Your task to perform on an android device: Open Amazon Image 0: 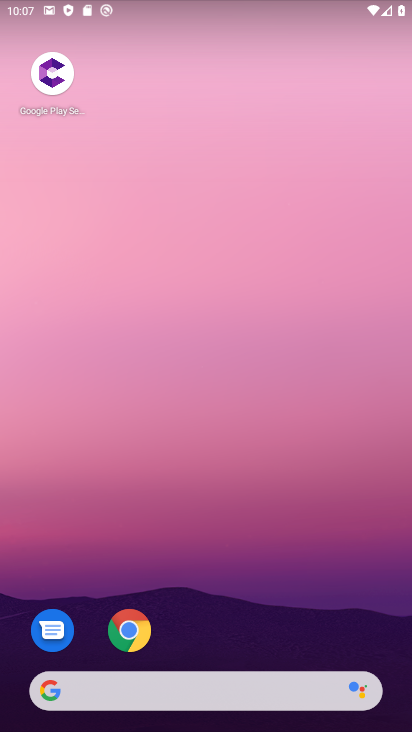
Step 0: drag from (158, 517) to (146, 444)
Your task to perform on an android device: Open Amazon Image 1: 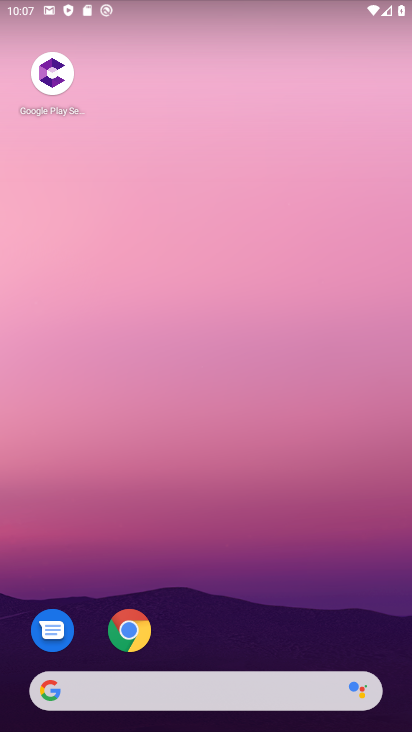
Step 1: drag from (178, 107) to (407, 316)
Your task to perform on an android device: Open Amazon Image 2: 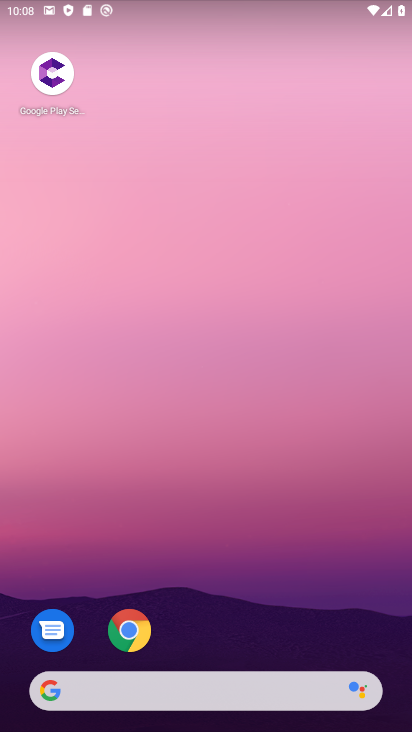
Step 2: drag from (271, 614) to (249, 93)
Your task to perform on an android device: Open Amazon Image 3: 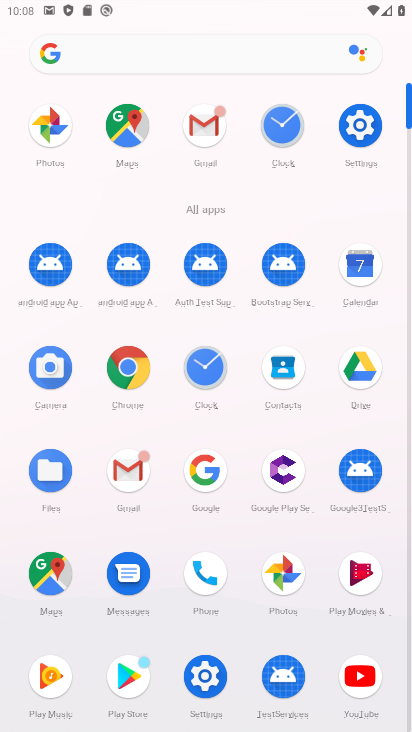
Step 3: click (129, 365)
Your task to perform on an android device: Open Amazon Image 4: 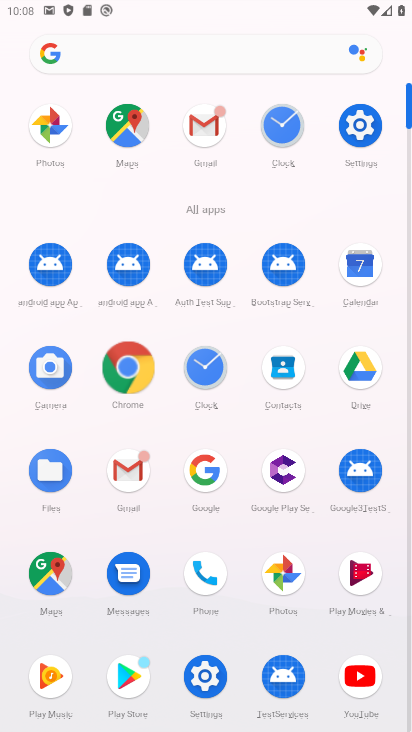
Step 4: click (126, 366)
Your task to perform on an android device: Open Amazon Image 5: 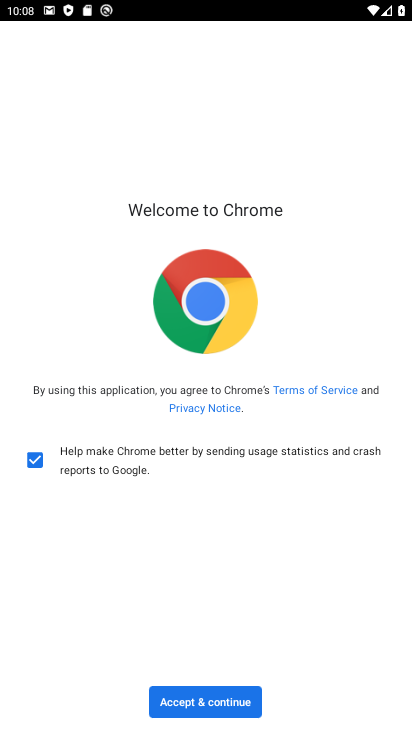
Step 5: click (211, 691)
Your task to perform on an android device: Open Amazon Image 6: 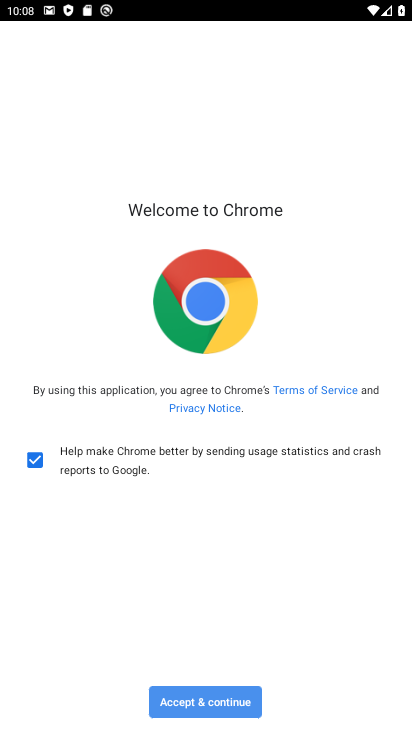
Step 6: click (207, 708)
Your task to perform on an android device: Open Amazon Image 7: 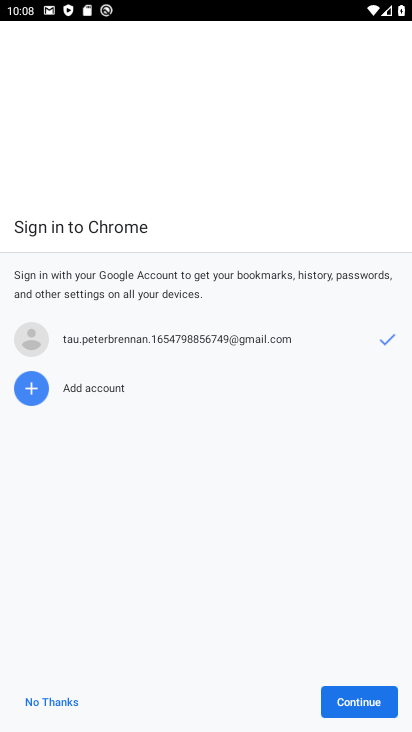
Step 7: click (351, 698)
Your task to perform on an android device: Open Amazon Image 8: 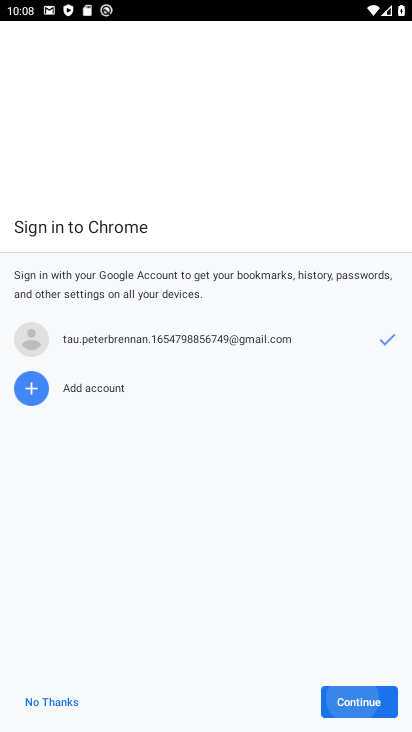
Step 8: click (362, 698)
Your task to perform on an android device: Open Amazon Image 9: 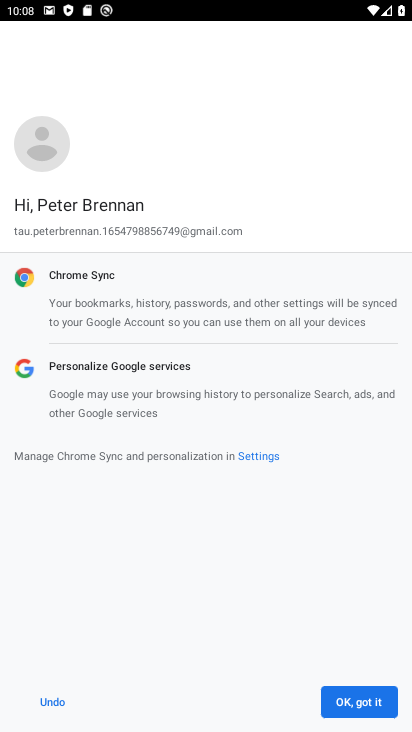
Step 9: click (356, 695)
Your task to perform on an android device: Open Amazon Image 10: 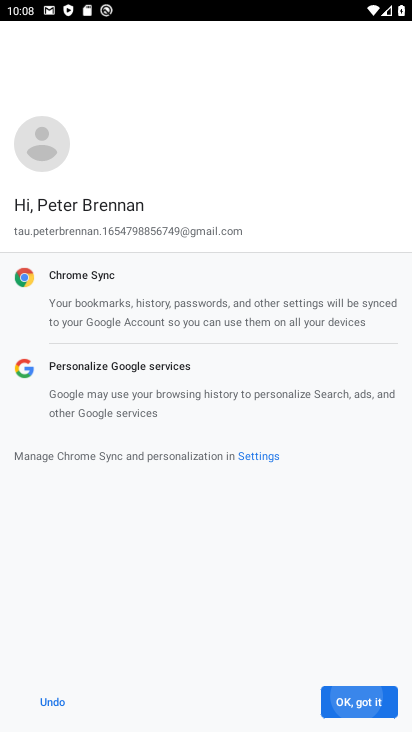
Step 10: click (364, 699)
Your task to perform on an android device: Open Amazon Image 11: 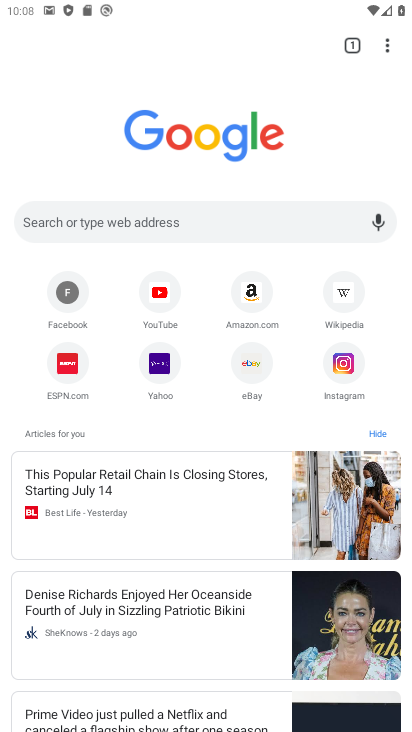
Step 11: click (251, 274)
Your task to perform on an android device: Open Amazon Image 12: 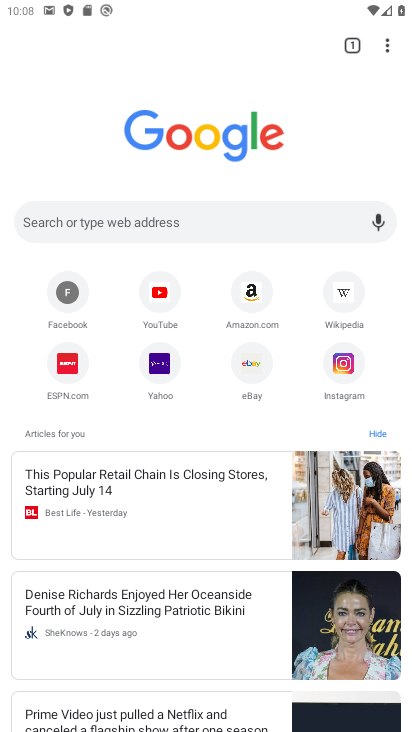
Step 12: click (269, 311)
Your task to perform on an android device: Open Amazon Image 13: 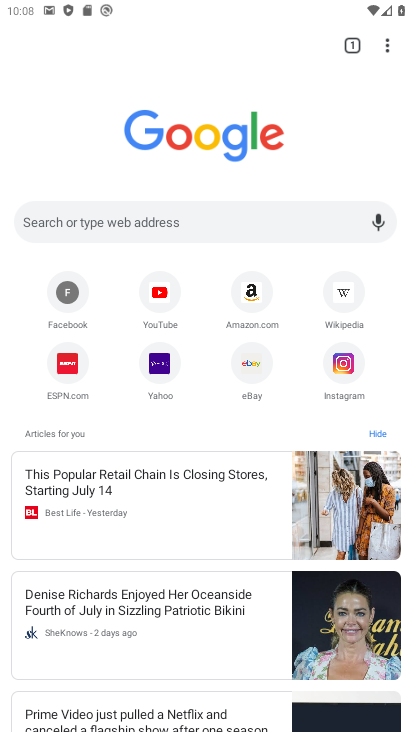
Step 13: click (278, 326)
Your task to perform on an android device: Open Amazon Image 14: 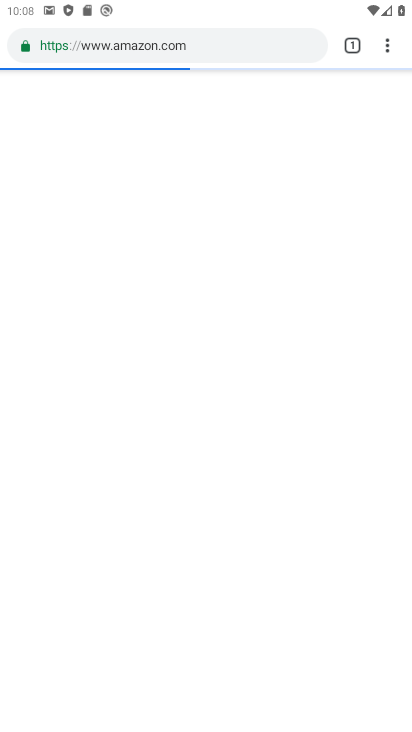
Step 14: click (264, 286)
Your task to perform on an android device: Open Amazon Image 15: 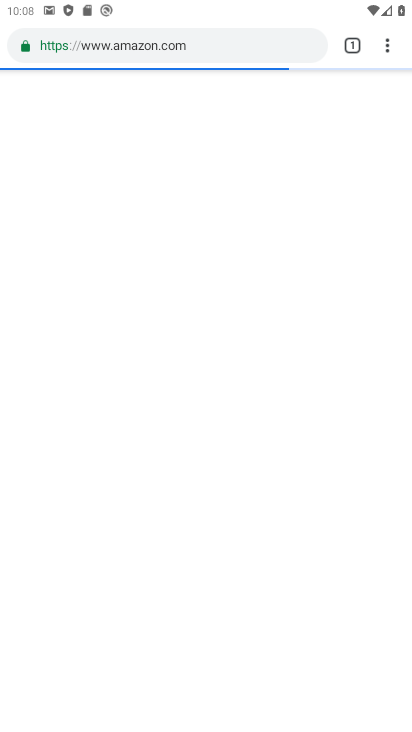
Step 15: click (277, 291)
Your task to perform on an android device: Open Amazon Image 16: 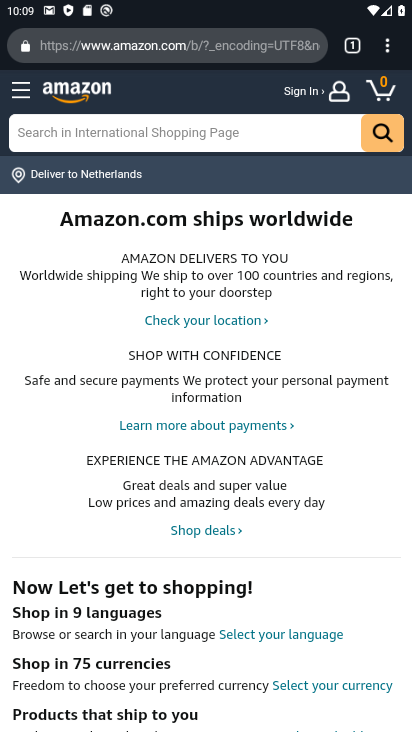
Step 16: task complete